Your task to perform on an android device: turn off smart reply in the gmail app Image 0: 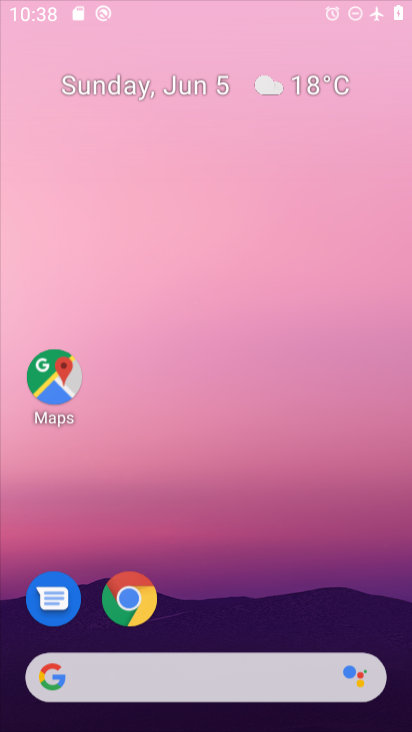
Step 0: click (208, 65)
Your task to perform on an android device: turn off smart reply in the gmail app Image 1: 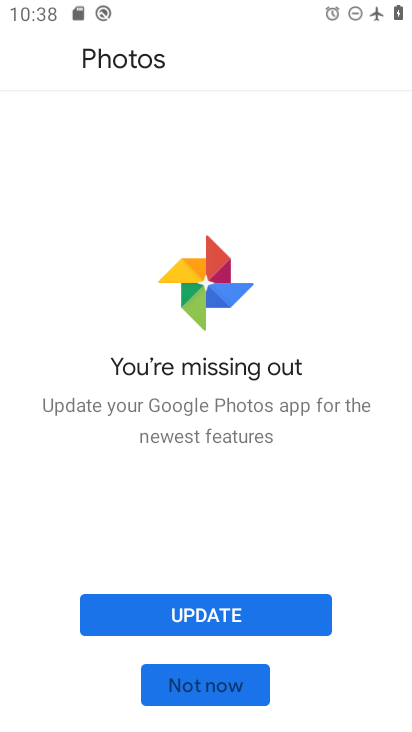
Step 1: press home button
Your task to perform on an android device: turn off smart reply in the gmail app Image 2: 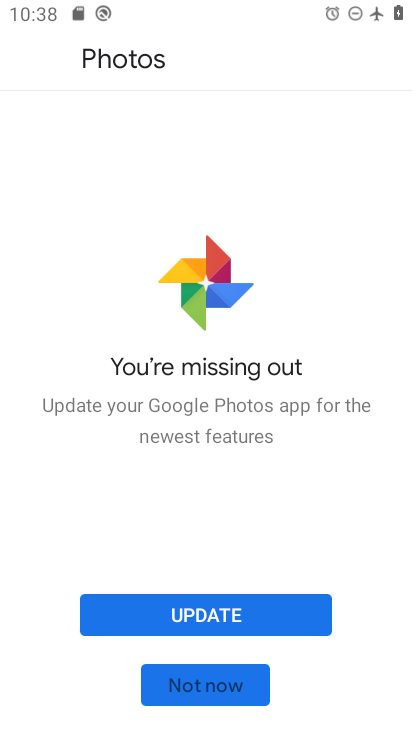
Step 2: press home button
Your task to perform on an android device: turn off smart reply in the gmail app Image 3: 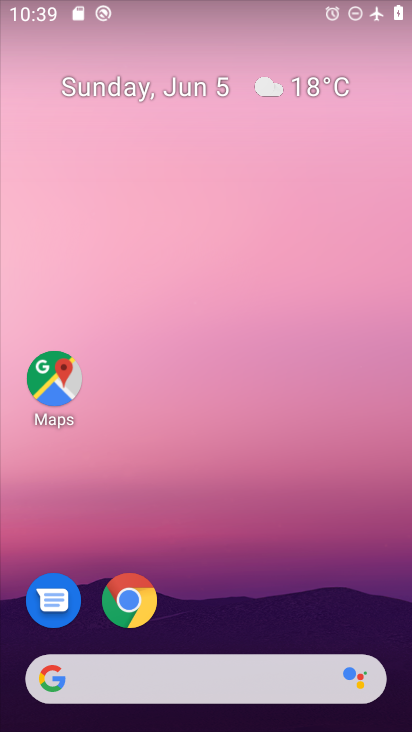
Step 3: drag from (247, 579) to (226, 36)
Your task to perform on an android device: turn off smart reply in the gmail app Image 4: 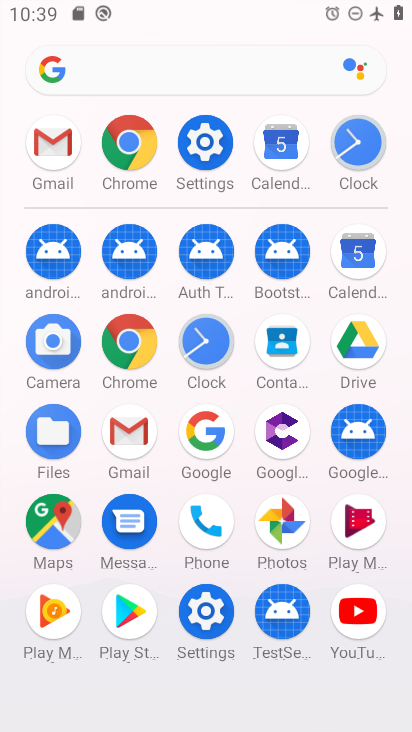
Step 4: click (66, 141)
Your task to perform on an android device: turn off smart reply in the gmail app Image 5: 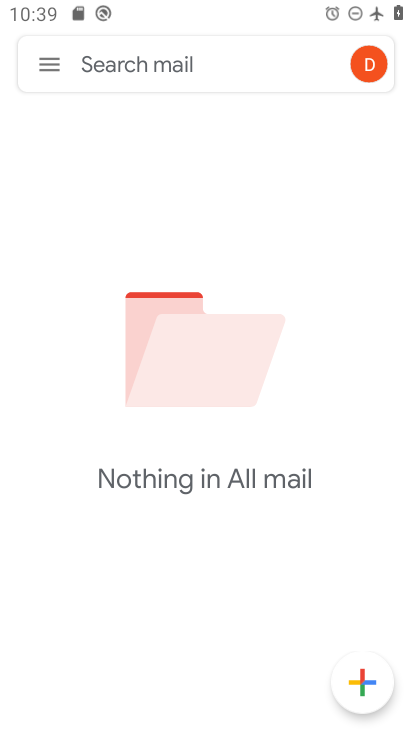
Step 5: click (48, 65)
Your task to perform on an android device: turn off smart reply in the gmail app Image 6: 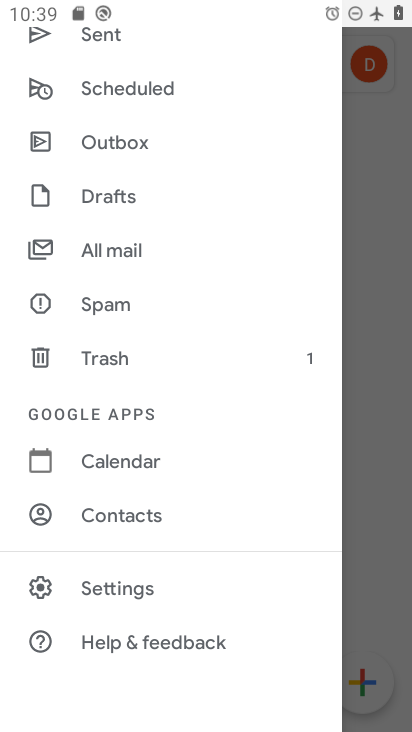
Step 6: click (139, 581)
Your task to perform on an android device: turn off smart reply in the gmail app Image 7: 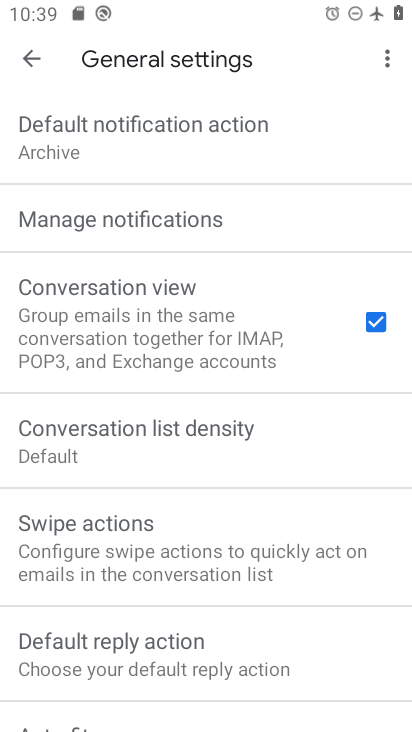
Step 7: drag from (244, 554) to (275, 50)
Your task to perform on an android device: turn off smart reply in the gmail app Image 8: 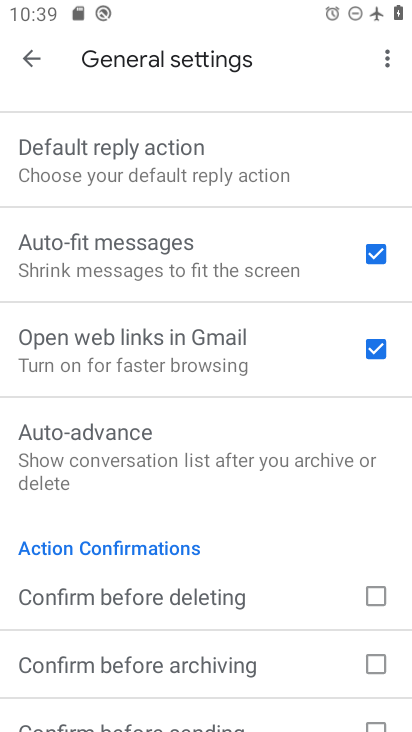
Step 8: drag from (260, 297) to (284, 722)
Your task to perform on an android device: turn off smart reply in the gmail app Image 9: 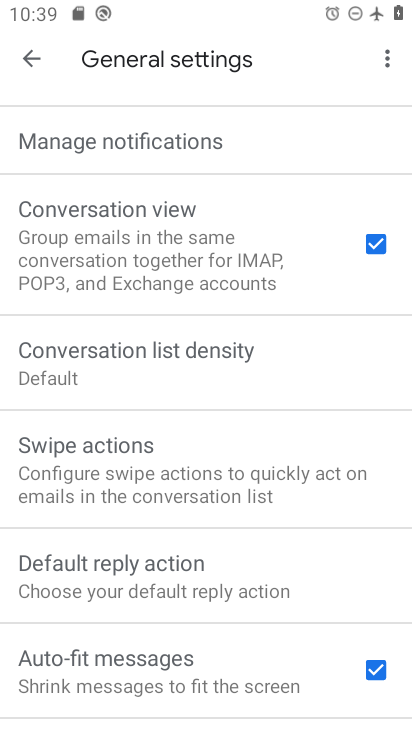
Step 9: click (29, 59)
Your task to perform on an android device: turn off smart reply in the gmail app Image 10: 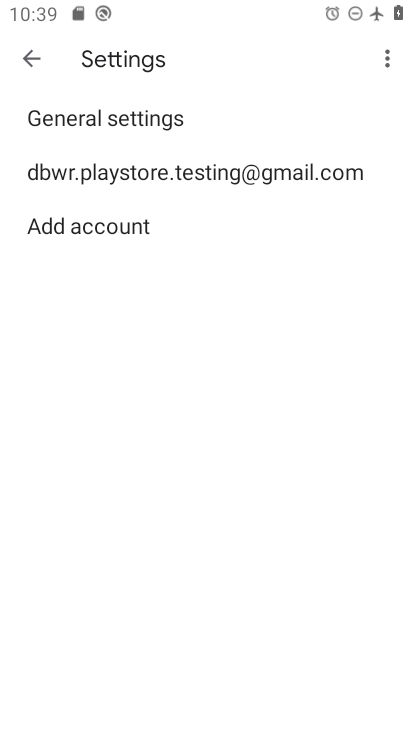
Step 10: click (169, 173)
Your task to perform on an android device: turn off smart reply in the gmail app Image 11: 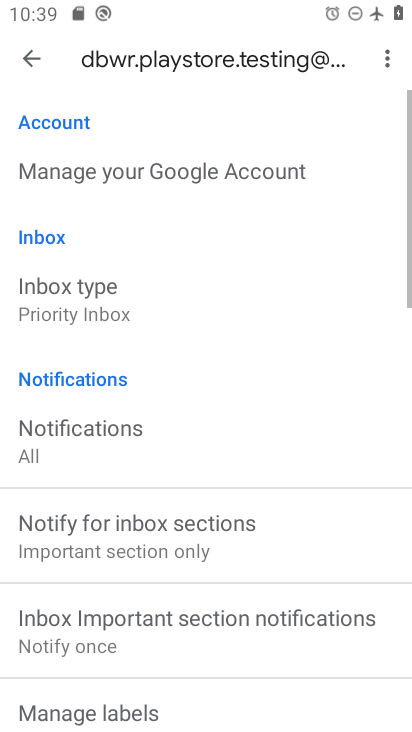
Step 11: task complete